Your task to perform on an android device: Go to settings Image 0: 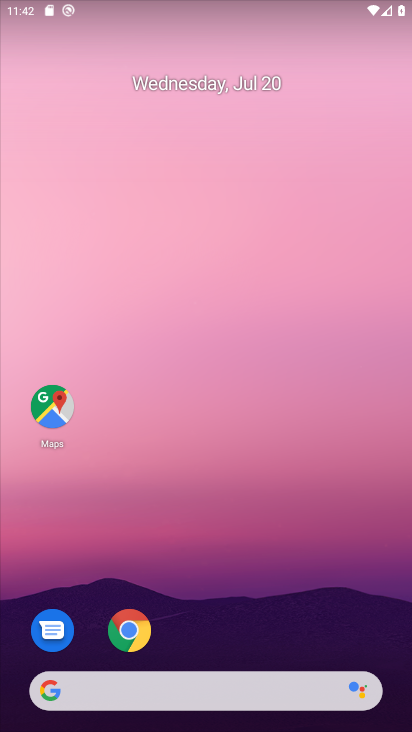
Step 0: drag from (182, 646) to (200, 303)
Your task to perform on an android device: Go to settings Image 1: 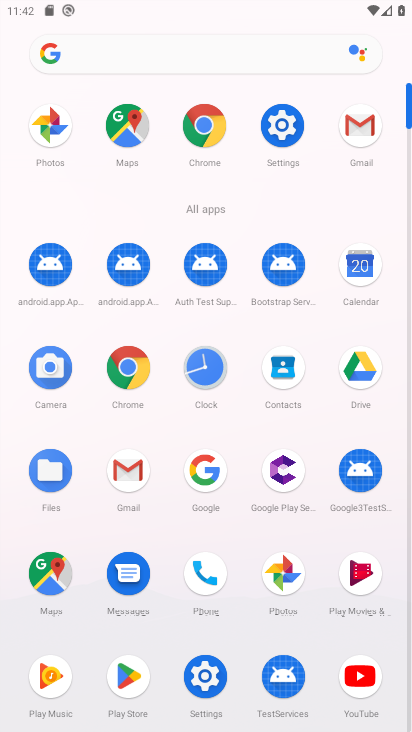
Step 1: click (276, 122)
Your task to perform on an android device: Go to settings Image 2: 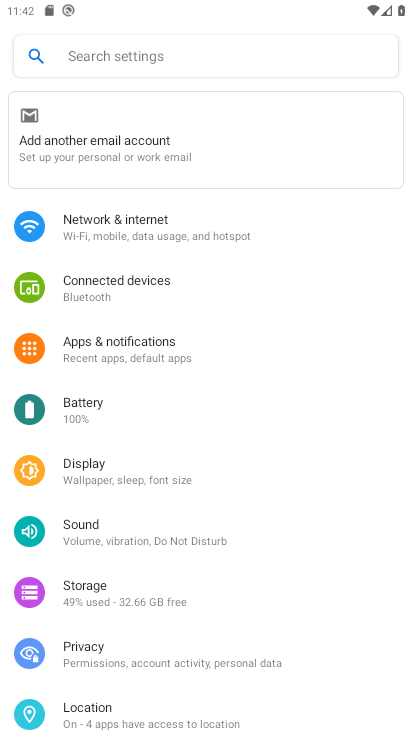
Step 2: task complete